Your task to perform on an android device: Go to network settings Image 0: 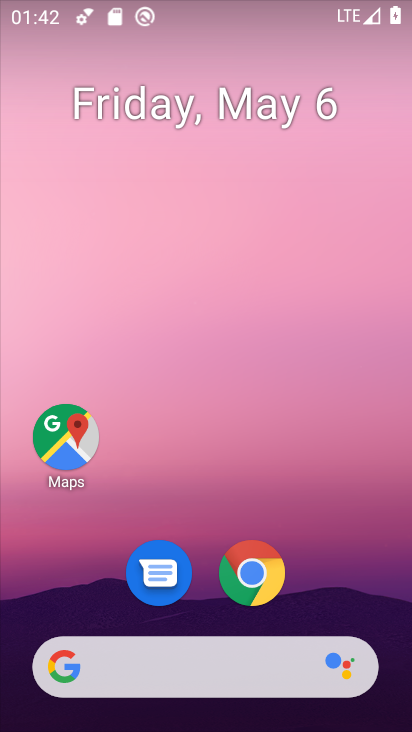
Step 0: drag from (340, 520) to (340, 312)
Your task to perform on an android device: Go to network settings Image 1: 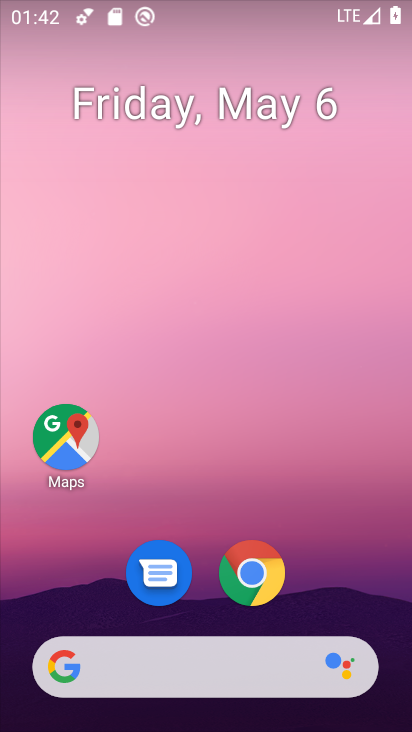
Step 1: drag from (310, 546) to (332, 194)
Your task to perform on an android device: Go to network settings Image 2: 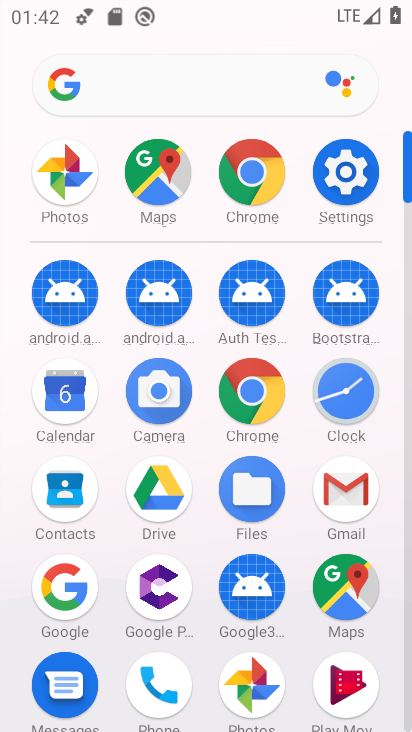
Step 2: click (339, 185)
Your task to perform on an android device: Go to network settings Image 3: 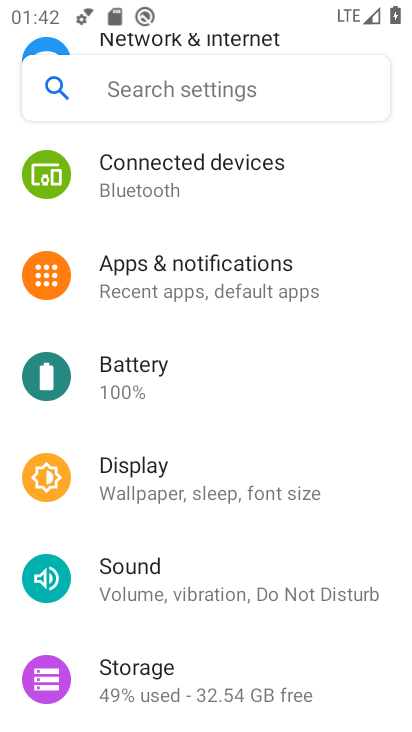
Step 3: drag from (184, 183) to (167, 649)
Your task to perform on an android device: Go to network settings Image 4: 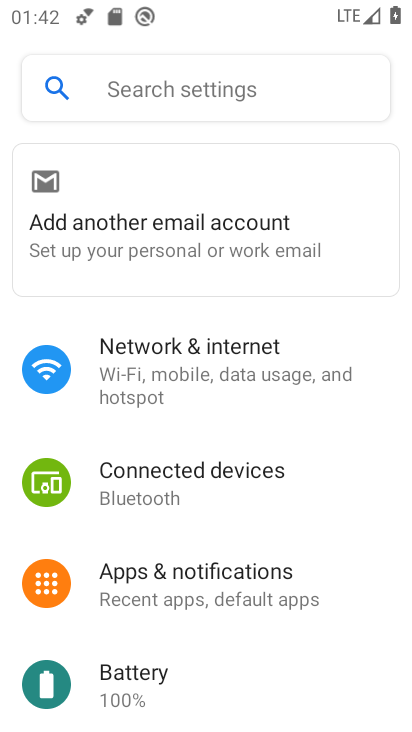
Step 4: click (197, 360)
Your task to perform on an android device: Go to network settings Image 5: 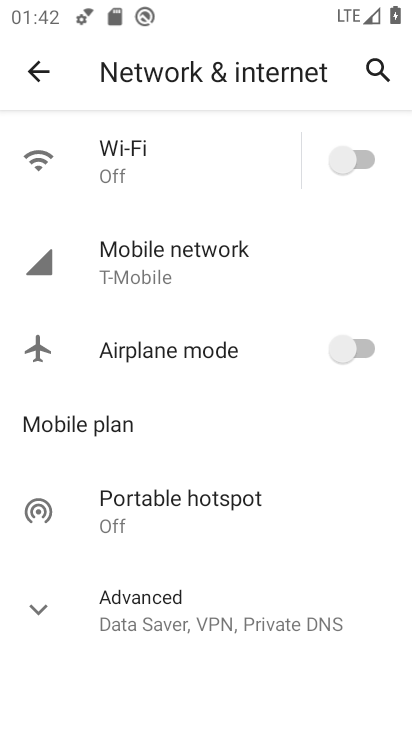
Step 5: task complete